Your task to perform on an android device: Go to Amazon Image 0: 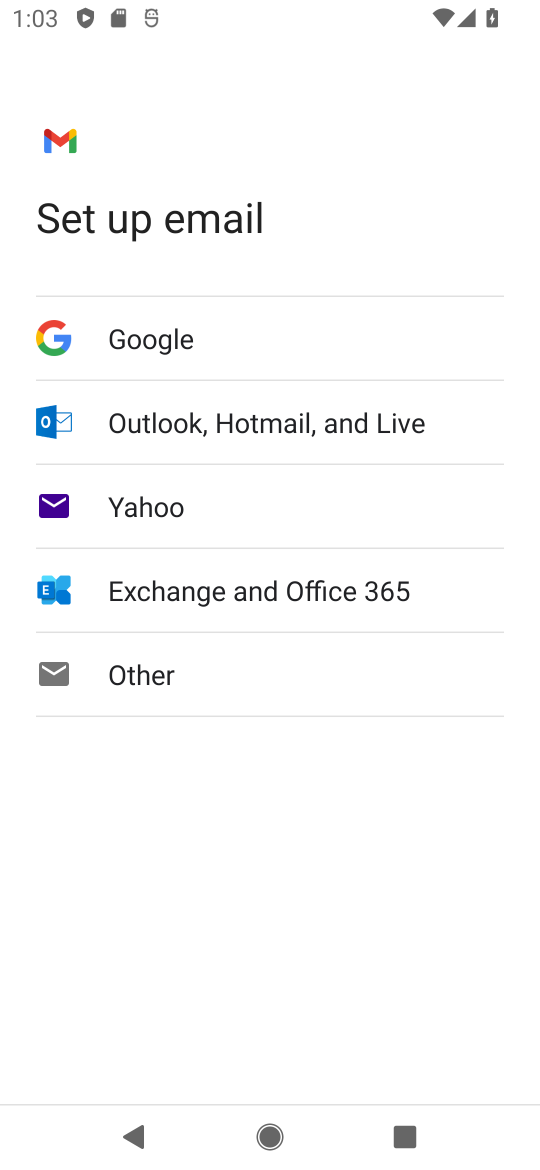
Step 0: press back button
Your task to perform on an android device: Go to Amazon Image 1: 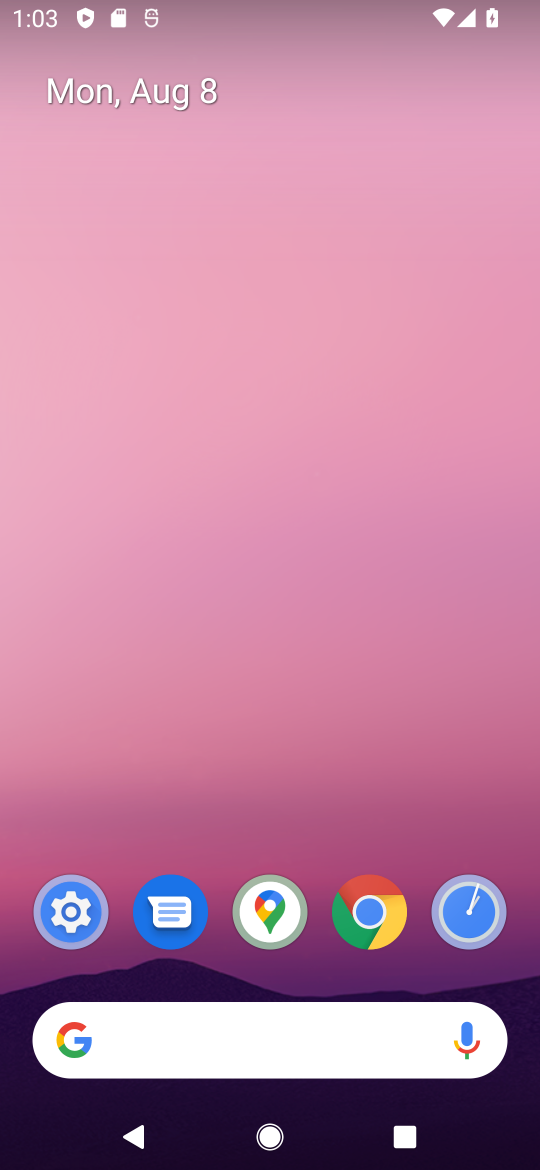
Step 1: click (381, 916)
Your task to perform on an android device: Go to Amazon Image 2: 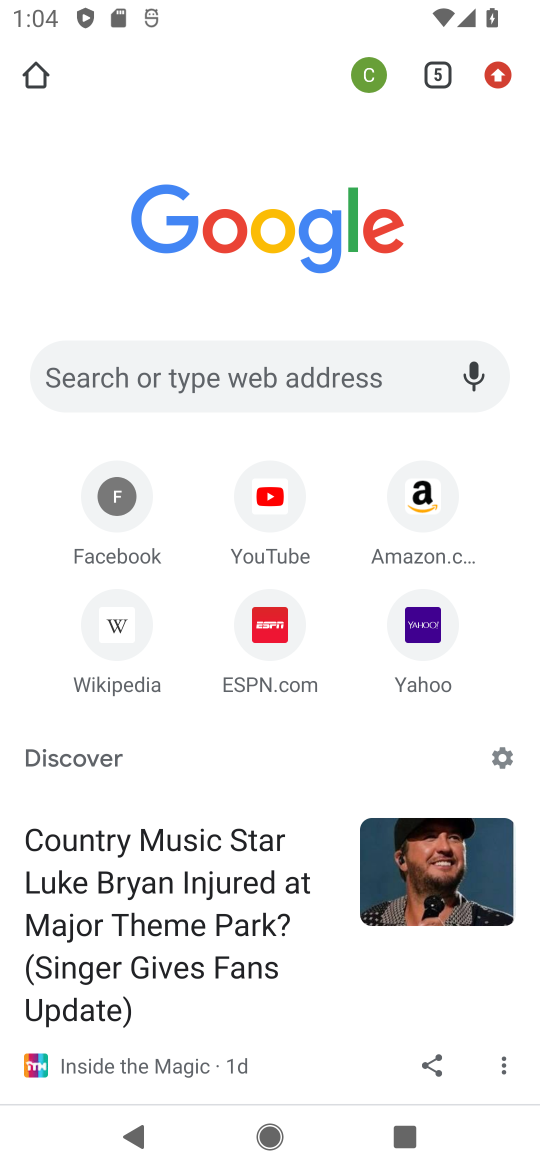
Step 2: click (418, 483)
Your task to perform on an android device: Go to Amazon Image 3: 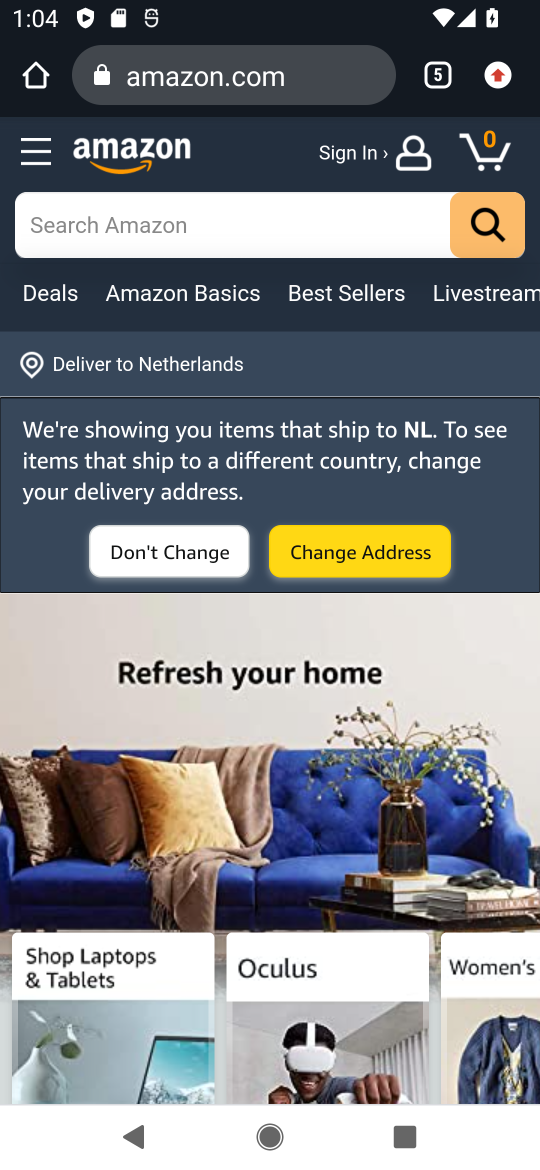
Step 3: task complete